Your task to perform on an android device: turn off priority inbox in the gmail app Image 0: 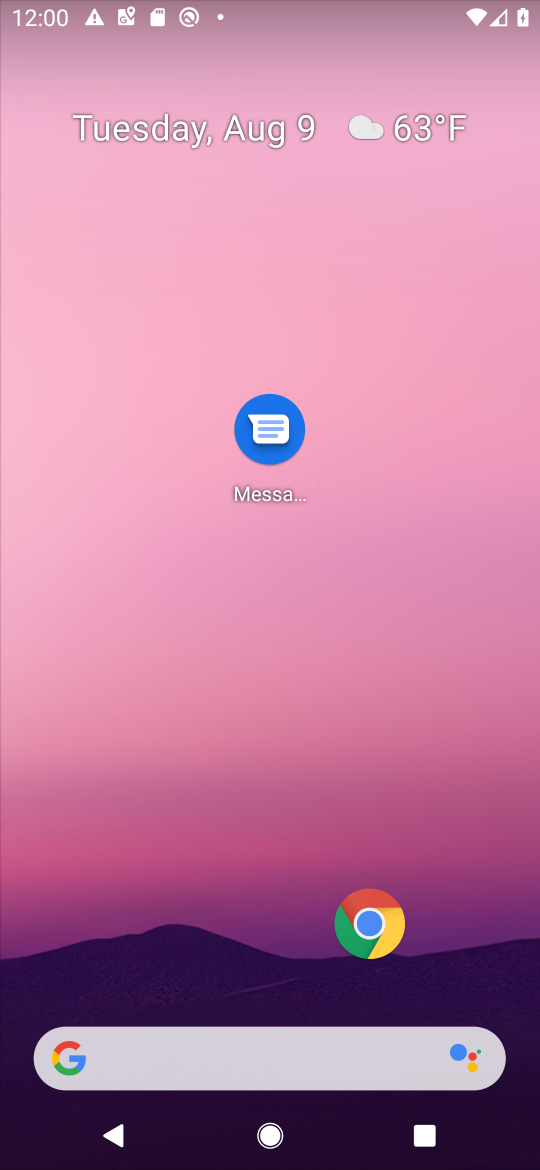
Step 0: drag from (27, 1117) to (148, 96)
Your task to perform on an android device: turn off priority inbox in the gmail app Image 1: 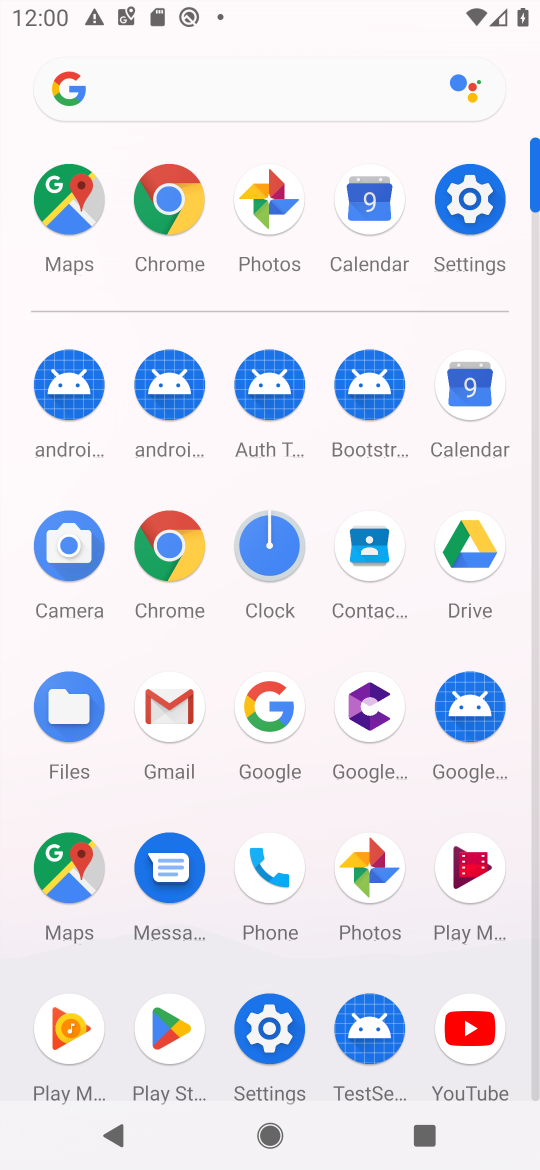
Step 1: click (156, 711)
Your task to perform on an android device: turn off priority inbox in the gmail app Image 2: 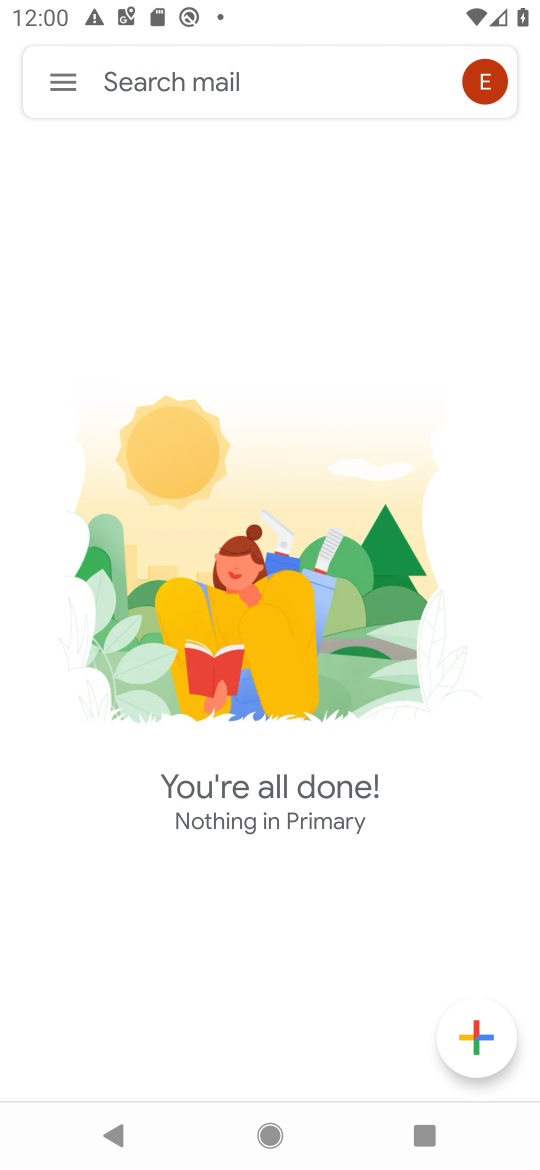
Step 2: click (58, 87)
Your task to perform on an android device: turn off priority inbox in the gmail app Image 3: 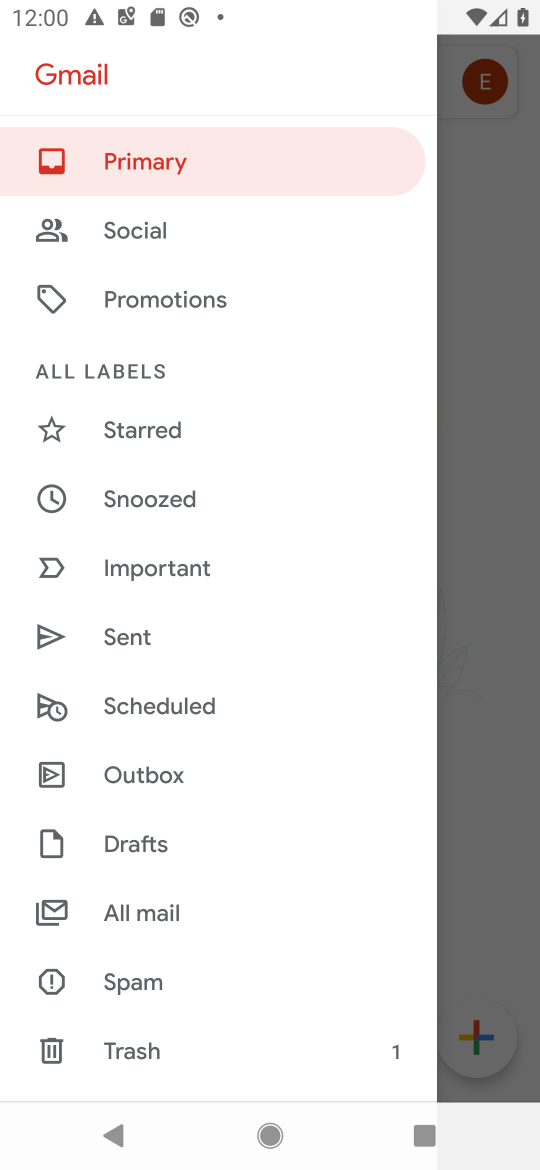
Step 3: drag from (252, 1002) to (387, 503)
Your task to perform on an android device: turn off priority inbox in the gmail app Image 4: 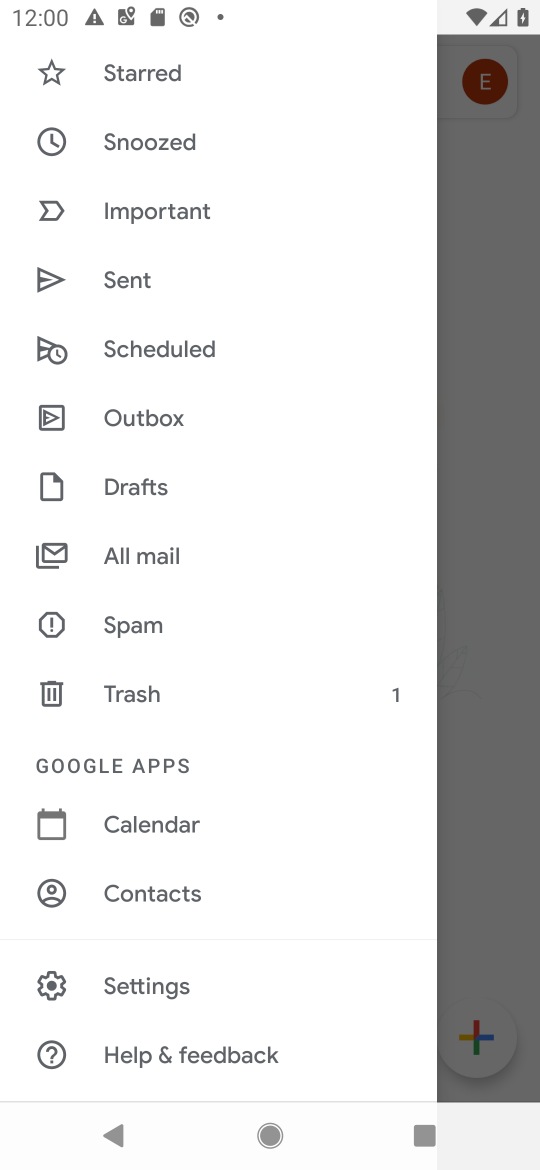
Step 4: click (151, 981)
Your task to perform on an android device: turn off priority inbox in the gmail app Image 5: 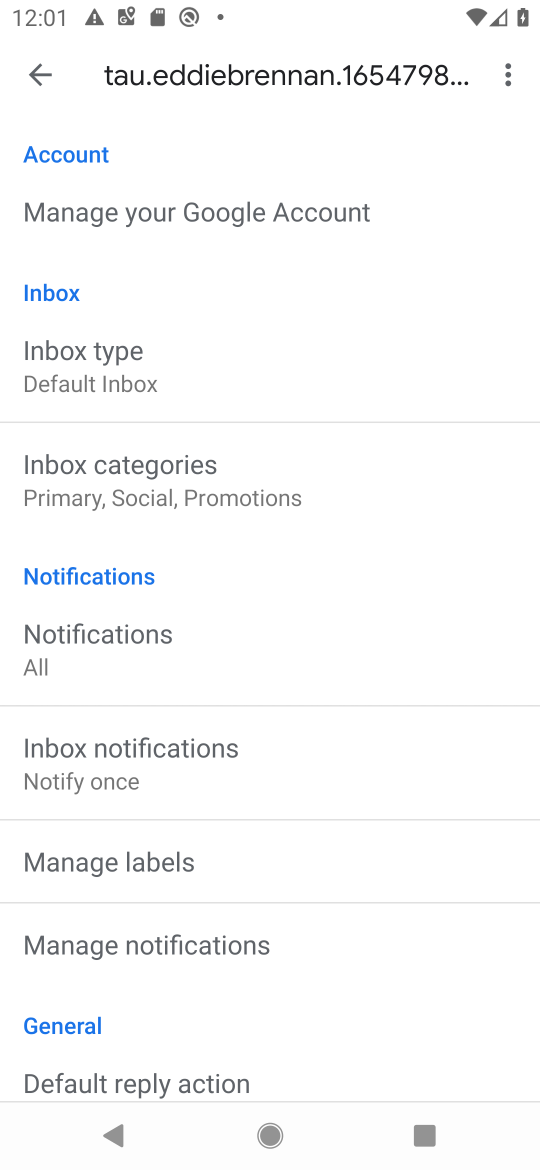
Step 5: click (144, 371)
Your task to perform on an android device: turn off priority inbox in the gmail app Image 6: 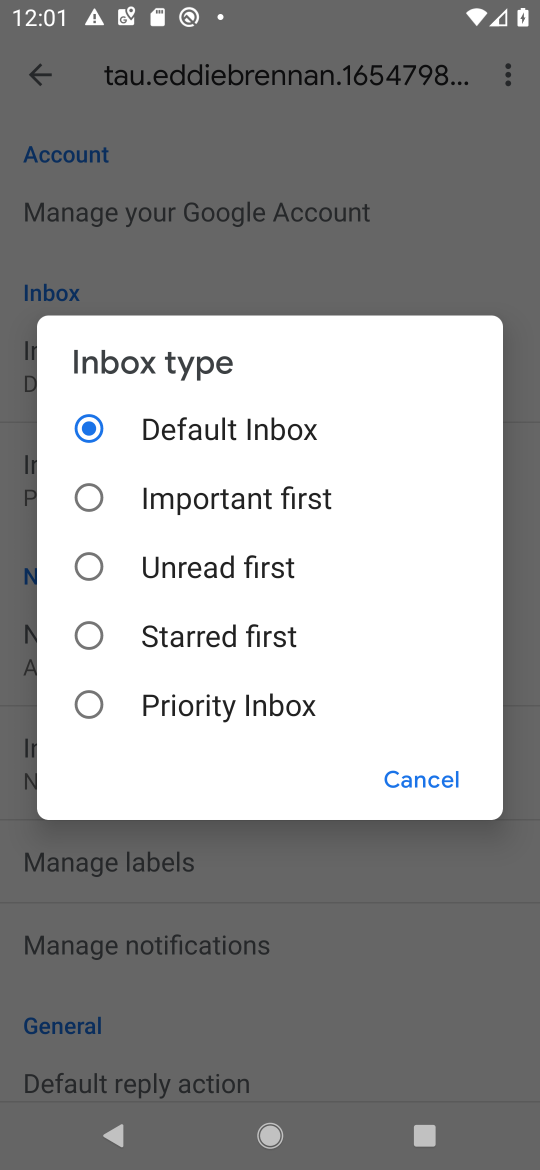
Step 6: click (87, 707)
Your task to perform on an android device: turn off priority inbox in the gmail app Image 7: 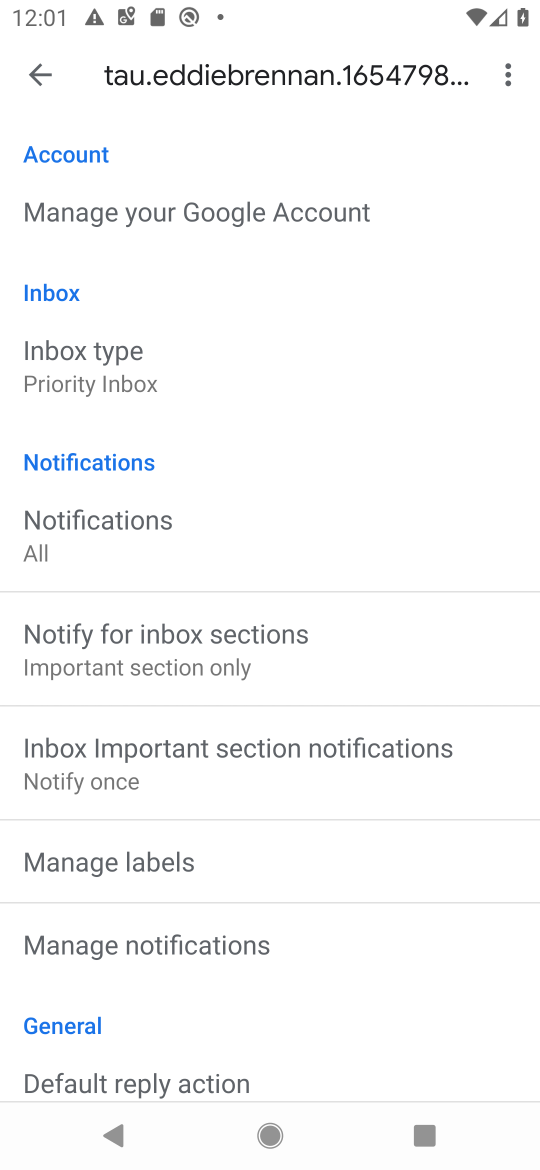
Step 7: task complete